Your task to perform on an android device: set the stopwatch Image 0: 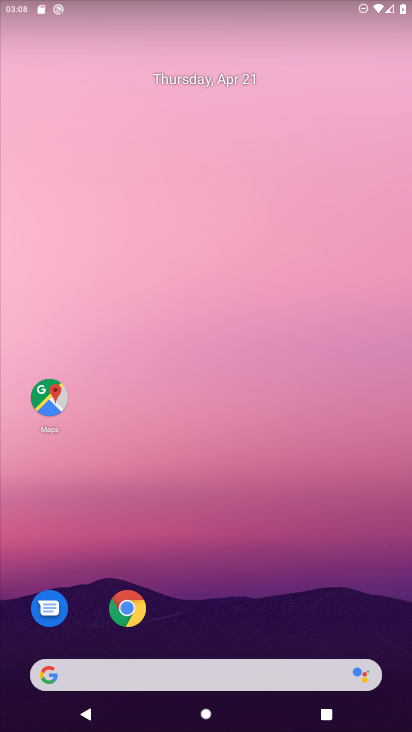
Step 0: drag from (253, 610) to (212, 179)
Your task to perform on an android device: set the stopwatch Image 1: 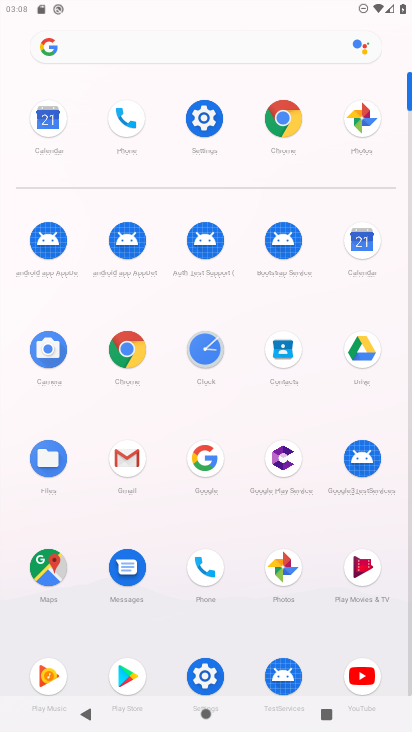
Step 1: click (199, 344)
Your task to perform on an android device: set the stopwatch Image 2: 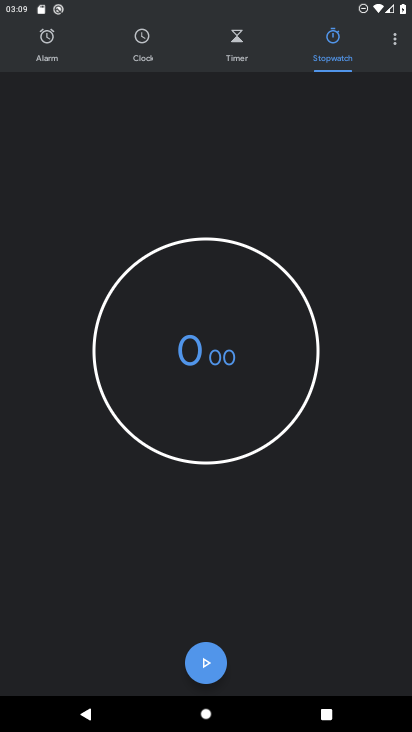
Step 2: task complete